Your task to perform on an android device: Search for vegetarian restaurants on Maps Image 0: 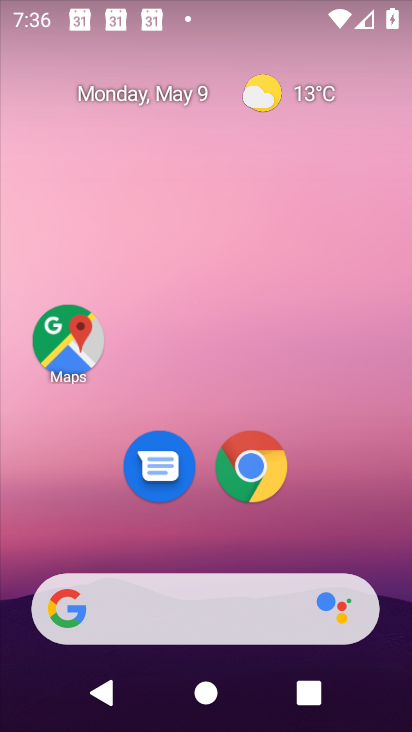
Step 0: drag from (318, 514) to (350, 227)
Your task to perform on an android device: Search for vegetarian restaurants on Maps Image 1: 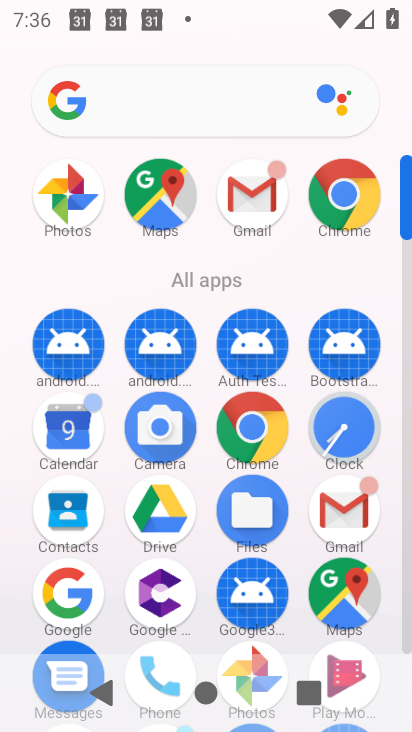
Step 1: click (332, 581)
Your task to perform on an android device: Search for vegetarian restaurants on Maps Image 2: 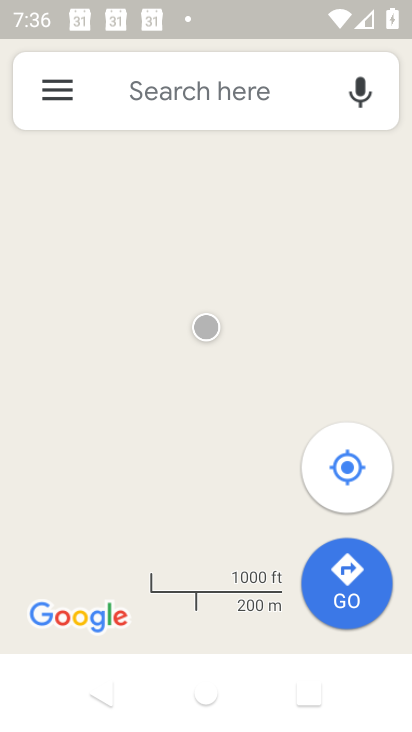
Step 2: click (203, 85)
Your task to perform on an android device: Search for vegetarian restaurants on Maps Image 3: 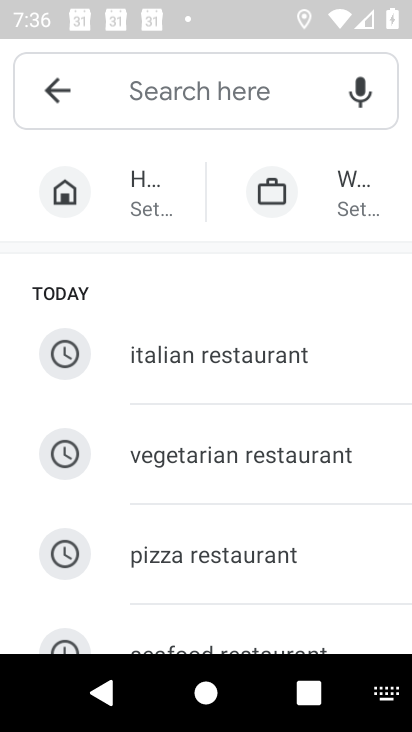
Step 3: click (271, 448)
Your task to perform on an android device: Search for vegetarian restaurants on Maps Image 4: 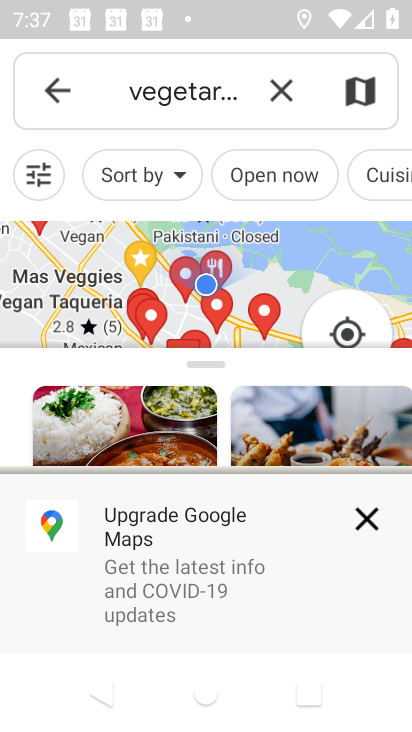
Step 4: task complete